Your task to perform on an android device: turn on wifi Image 0: 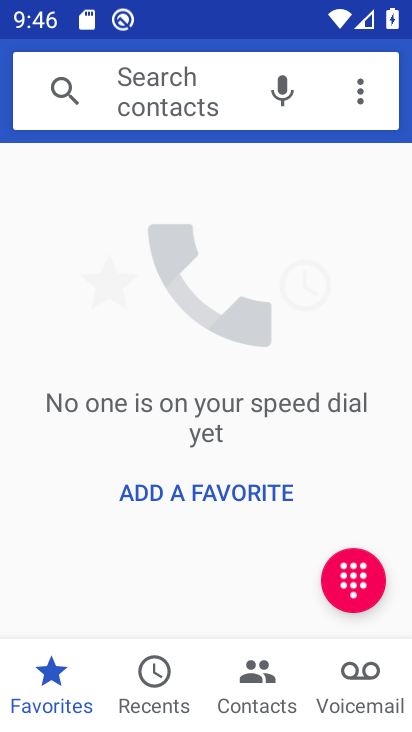
Step 0: press home button
Your task to perform on an android device: turn on wifi Image 1: 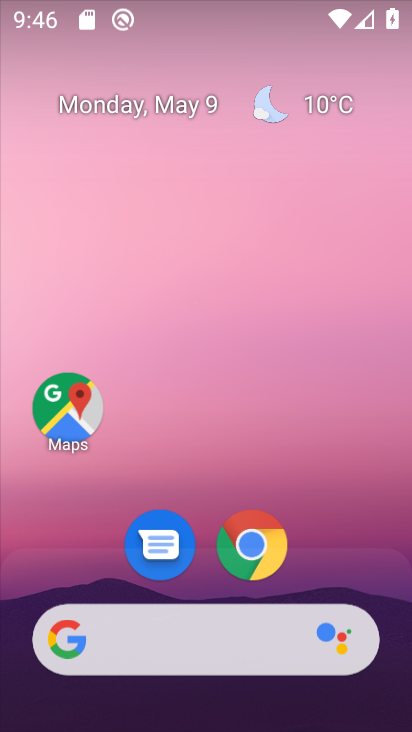
Step 1: task complete